Your task to perform on an android device: Go to calendar. Show me events next week Image 0: 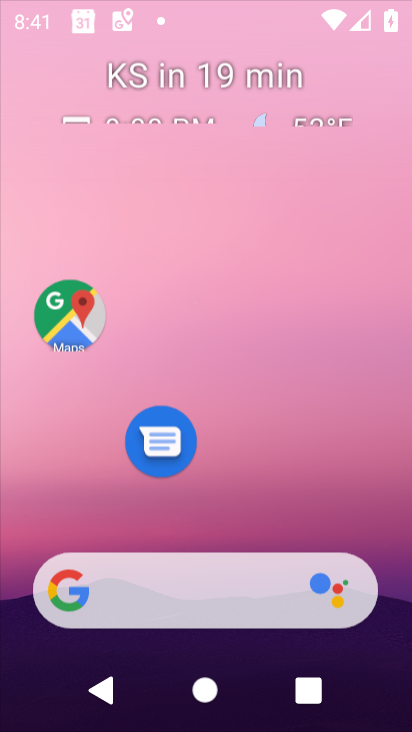
Step 0: drag from (209, 127) to (186, 0)
Your task to perform on an android device: Go to calendar. Show me events next week Image 1: 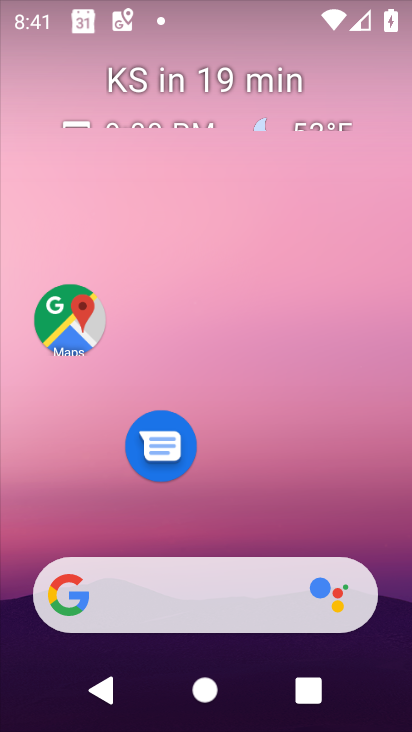
Step 1: drag from (222, 540) to (175, 8)
Your task to perform on an android device: Go to calendar. Show me events next week Image 2: 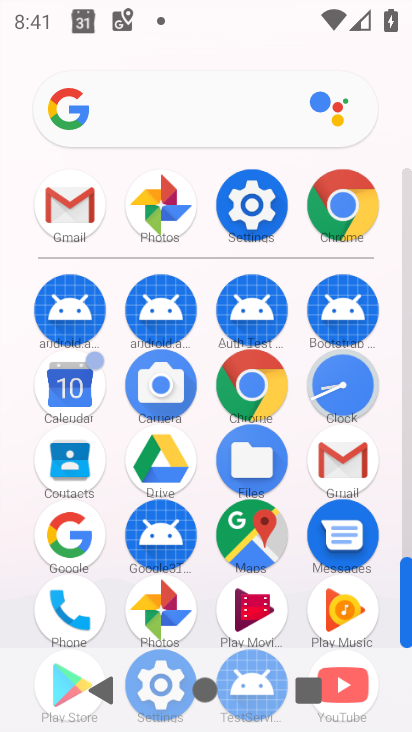
Step 2: click (75, 405)
Your task to perform on an android device: Go to calendar. Show me events next week Image 3: 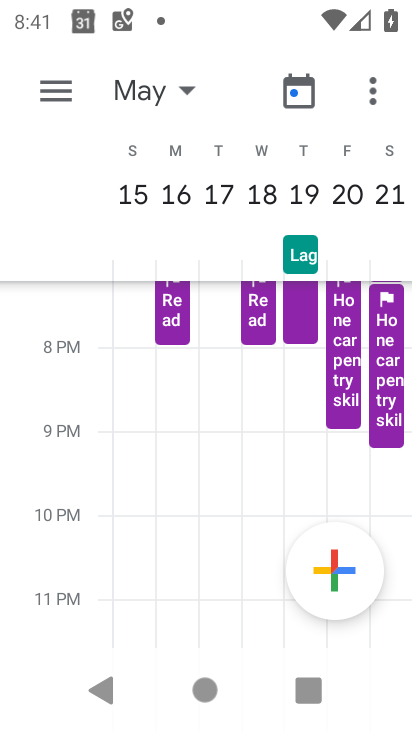
Step 3: task complete